Your task to perform on an android device: Go to internet settings Image 0: 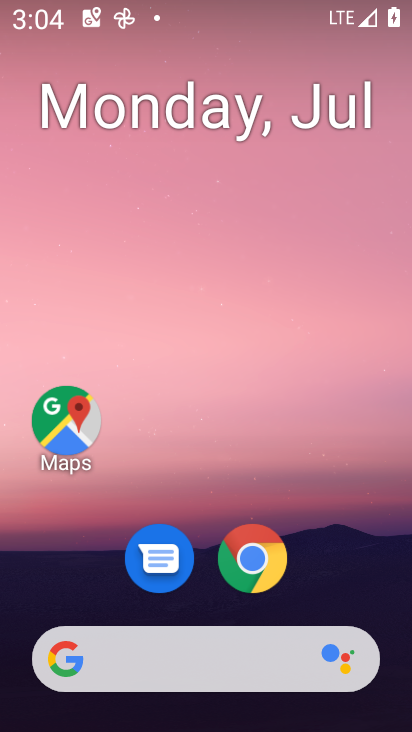
Step 0: press home button
Your task to perform on an android device: Go to internet settings Image 1: 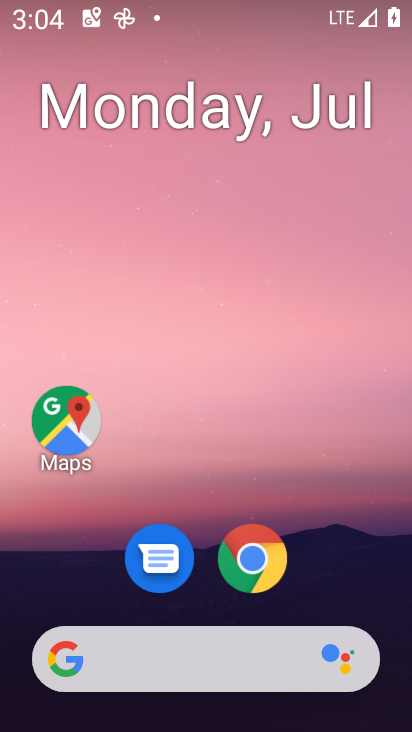
Step 1: drag from (362, 570) to (338, 73)
Your task to perform on an android device: Go to internet settings Image 2: 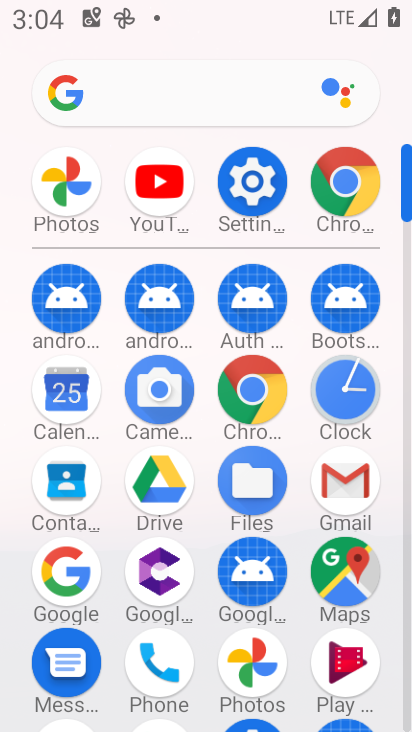
Step 2: click (258, 195)
Your task to perform on an android device: Go to internet settings Image 3: 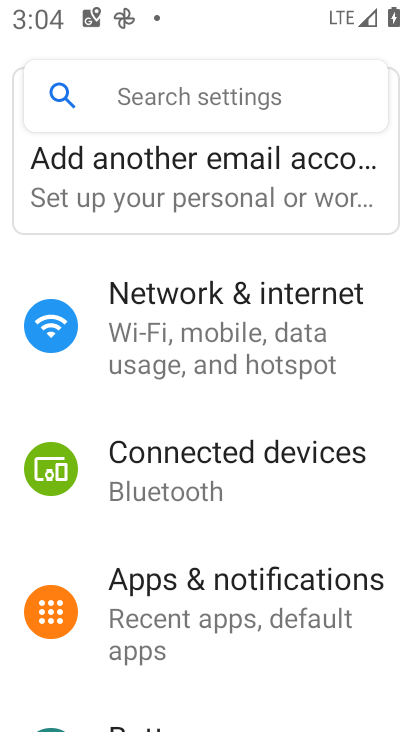
Step 3: drag from (377, 532) to (373, 361)
Your task to perform on an android device: Go to internet settings Image 4: 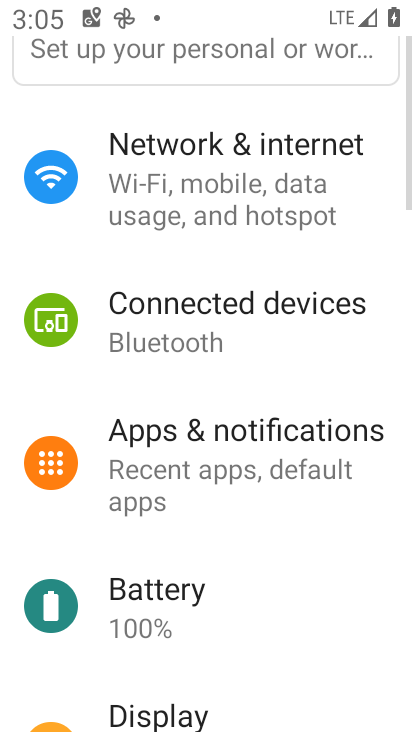
Step 4: drag from (352, 596) to (326, 372)
Your task to perform on an android device: Go to internet settings Image 5: 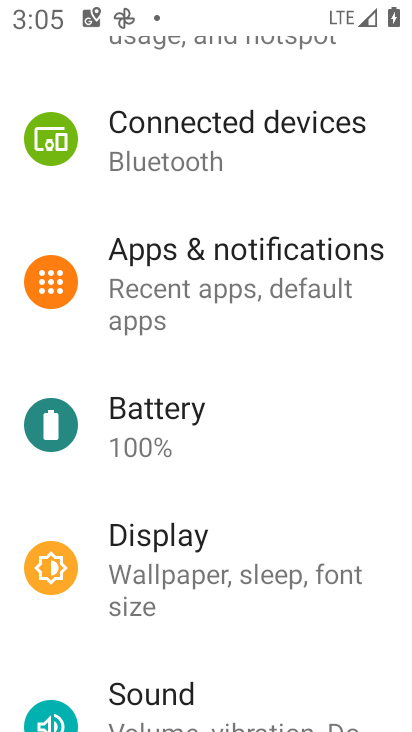
Step 5: drag from (352, 619) to (325, 434)
Your task to perform on an android device: Go to internet settings Image 6: 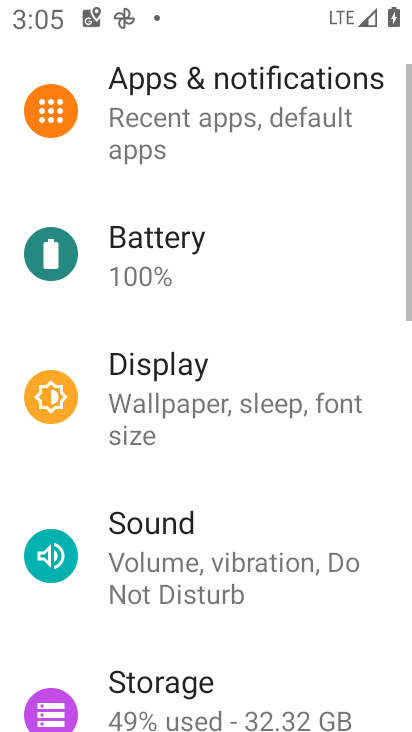
Step 6: drag from (328, 644) to (315, 496)
Your task to perform on an android device: Go to internet settings Image 7: 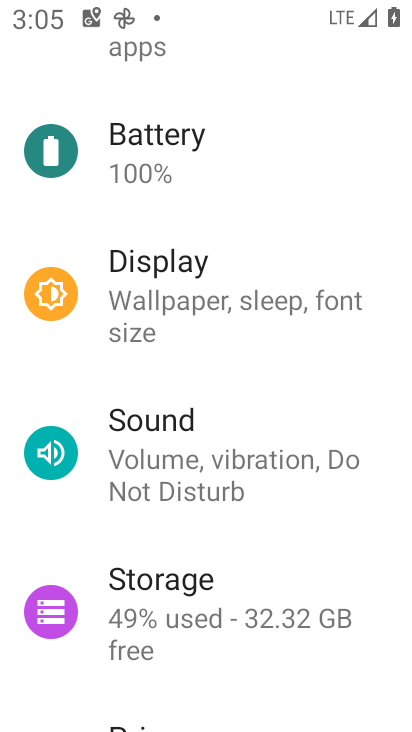
Step 7: drag from (357, 318) to (360, 404)
Your task to perform on an android device: Go to internet settings Image 8: 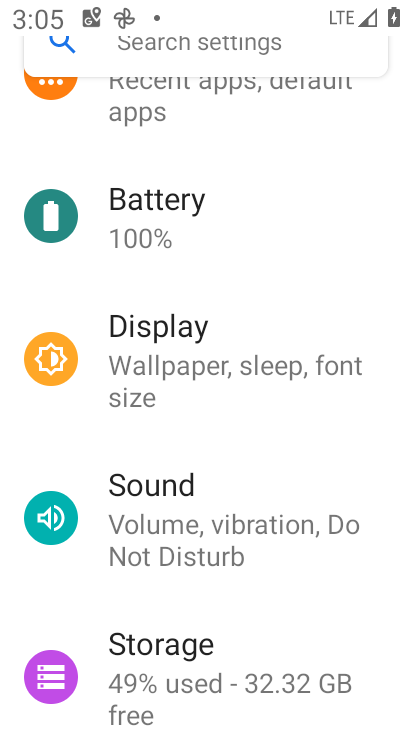
Step 8: drag from (357, 220) to (356, 406)
Your task to perform on an android device: Go to internet settings Image 9: 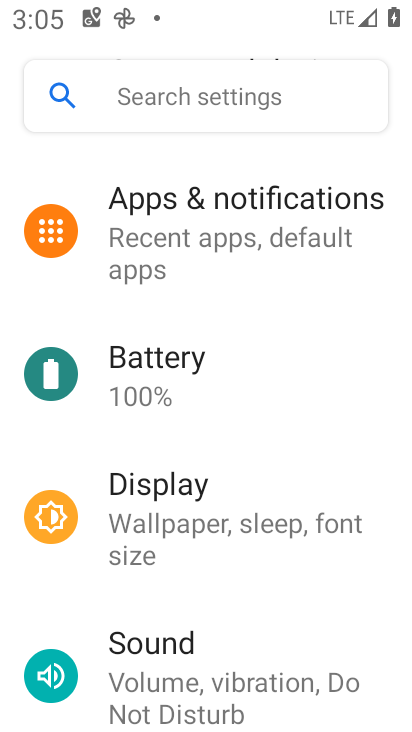
Step 9: drag from (373, 236) to (356, 416)
Your task to perform on an android device: Go to internet settings Image 10: 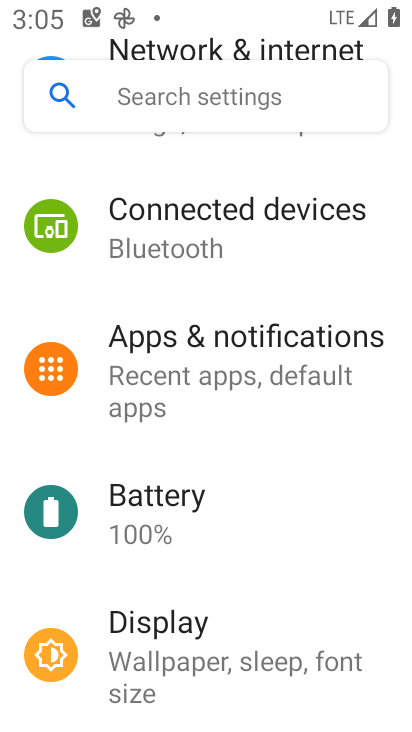
Step 10: drag from (371, 168) to (373, 366)
Your task to perform on an android device: Go to internet settings Image 11: 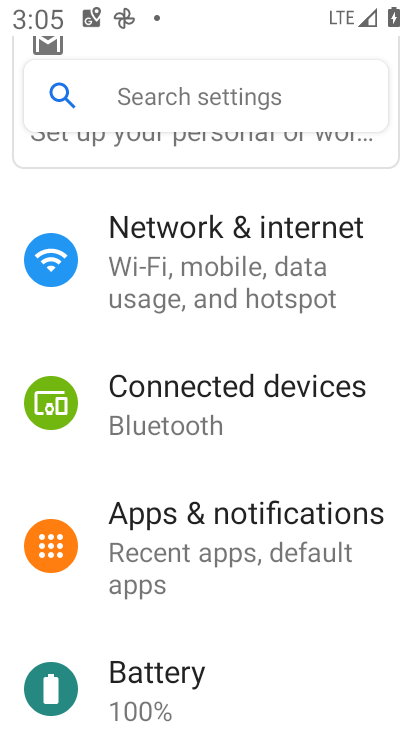
Step 11: drag from (374, 198) to (370, 396)
Your task to perform on an android device: Go to internet settings Image 12: 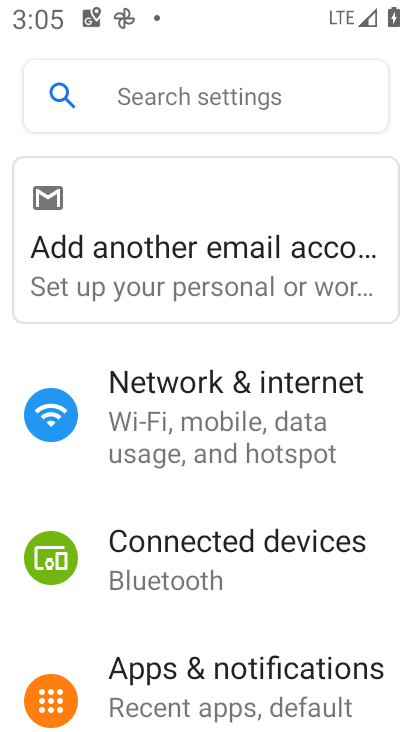
Step 12: click (311, 427)
Your task to perform on an android device: Go to internet settings Image 13: 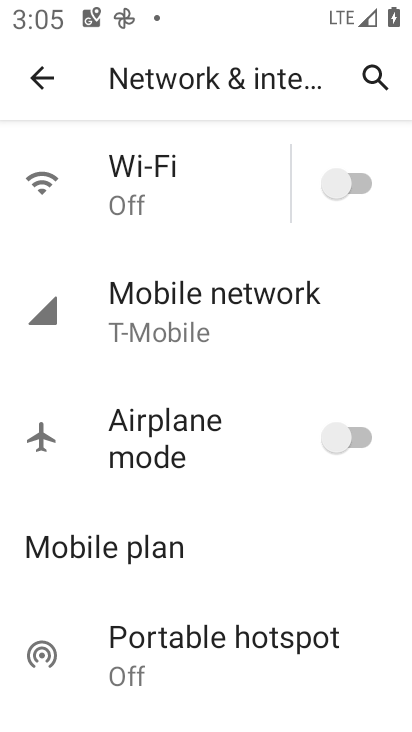
Step 13: task complete